Your task to perform on an android device: check google app version Image 0: 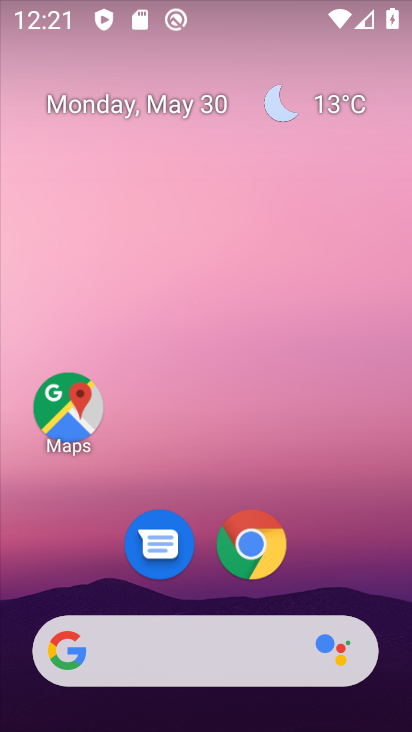
Step 0: click (268, 580)
Your task to perform on an android device: check google app version Image 1: 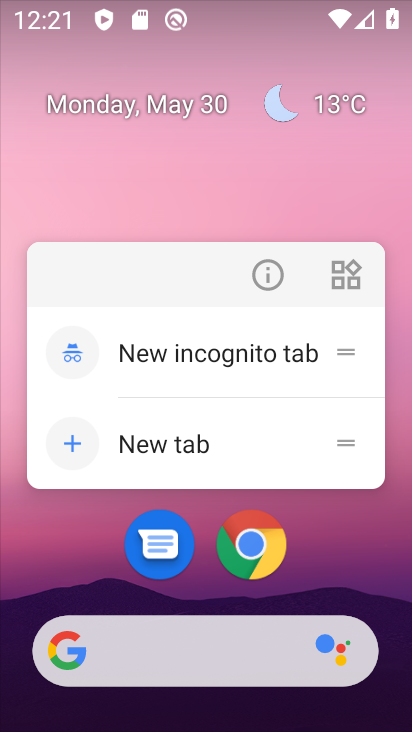
Step 1: click (256, 288)
Your task to perform on an android device: check google app version Image 2: 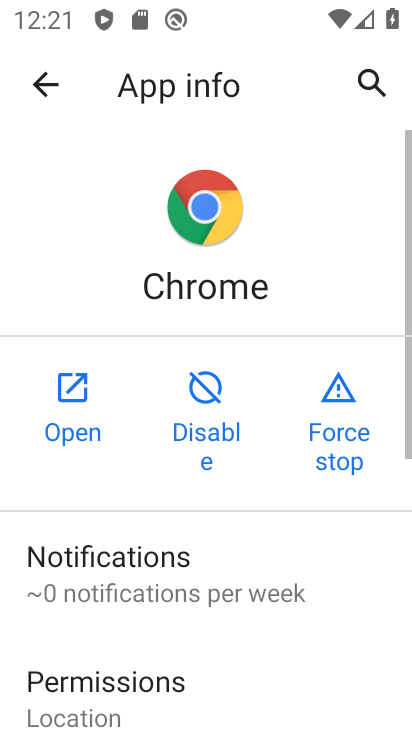
Step 2: task complete